Your task to perform on an android device: turn off notifications settings in the gmail app Image 0: 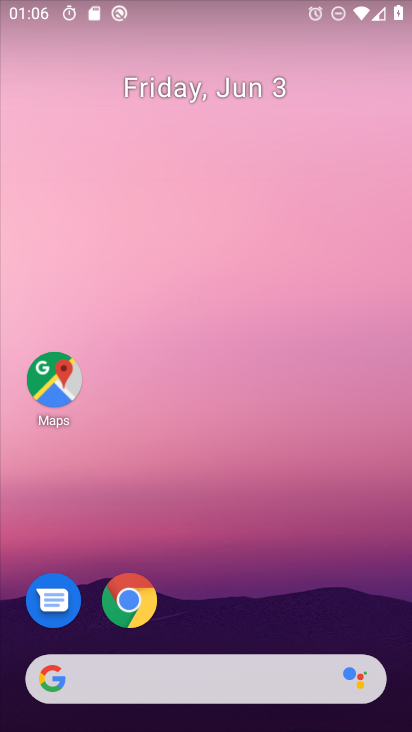
Step 0: drag from (224, 611) to (310, 60)
Your task to perform on an android device: turn off notifications settings in the gmail app Image 1: 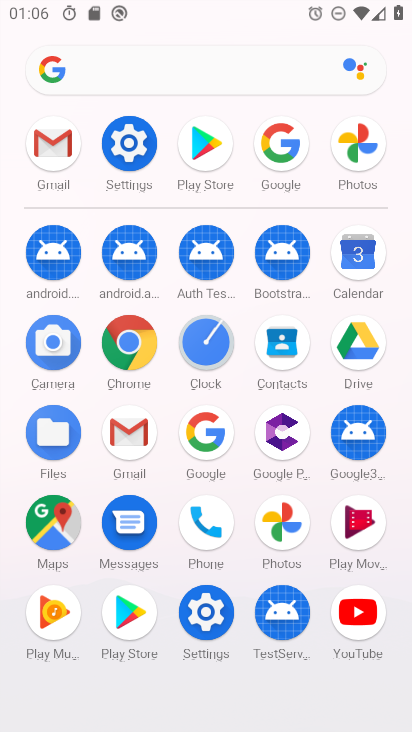
Step 1: click (48, 150)
Your task to perform on an android device: turn off notifications settings in the gmail app Image 2: 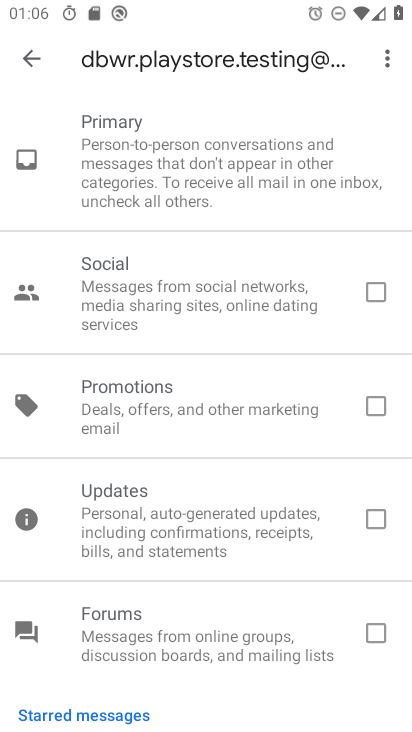
Step 2: press back button
Your task to perform on an android device: turn off notifications settings in the gmail app Image 3: 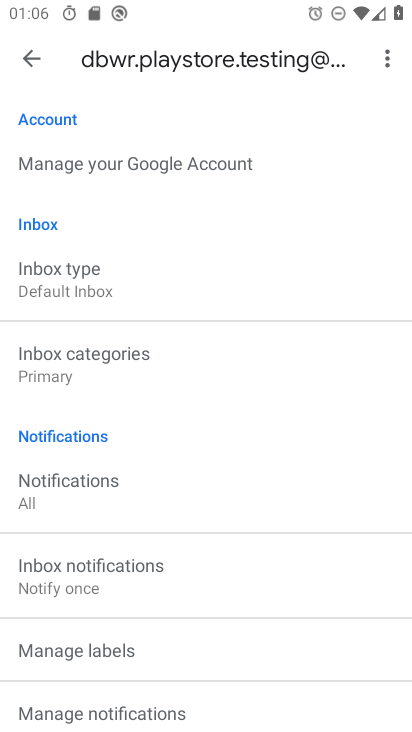
Step 3: click (92, 267)
Your task to perform on an android device: turn off notifications settings in the gmail app Image 4: 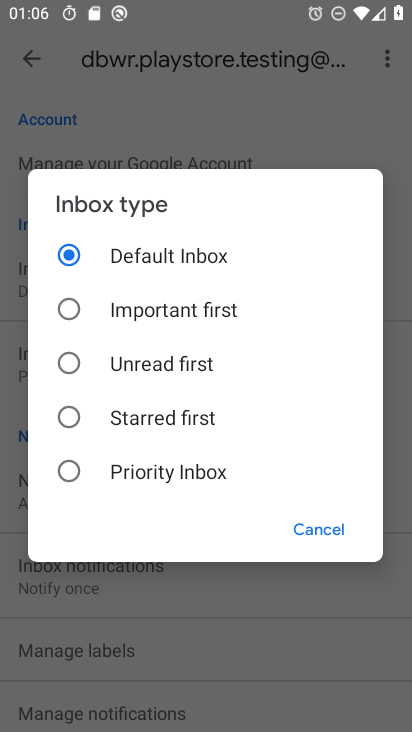
Step 4: click (314, 556)
Your task to perform on an android device: turn off notifications settings in the gmail app Image 5: 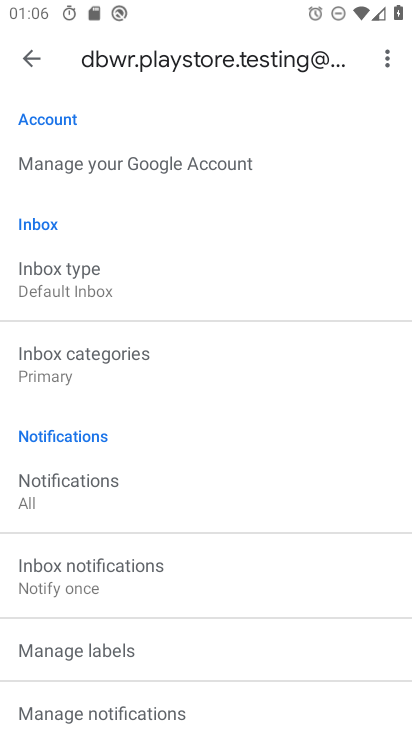
Step 5: click (108, 486)
Your task to perform on an android device: turn off notifications settings in the gmail app Image 6: 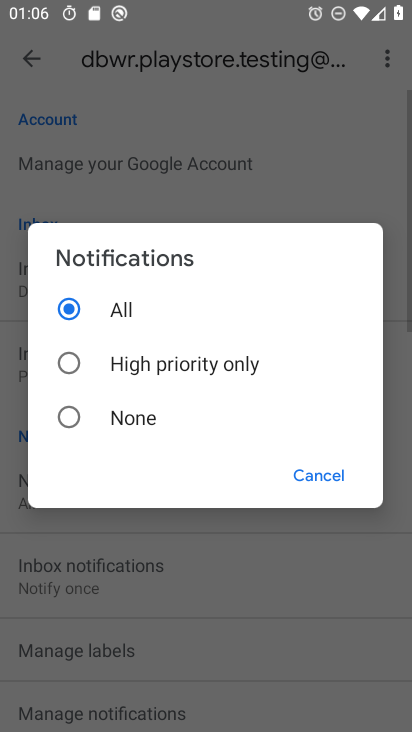
Step 6: click (62, 415)
Your task to perform on an android device: turn off notifications settings in the gmail app Image 7: 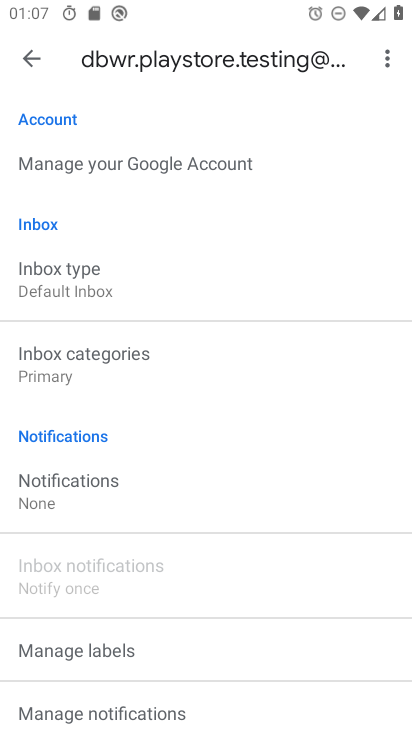
Step 7: task complete